Your task to perform on an android device: toggle pop-ups in chrome Image 0: 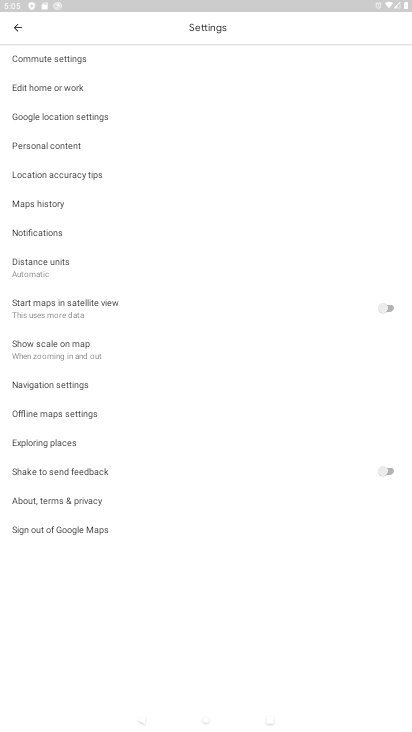
Step 0: press home button
Your task to perform on an android device: toggle pop-ups in chrome Image 1: 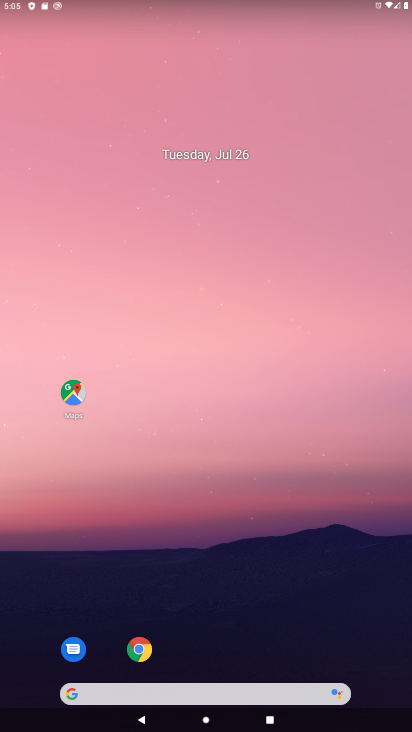
Step 1: click (140, 653)
Your task to perform on an android device: toggle pop-ups in chrome Image 2: 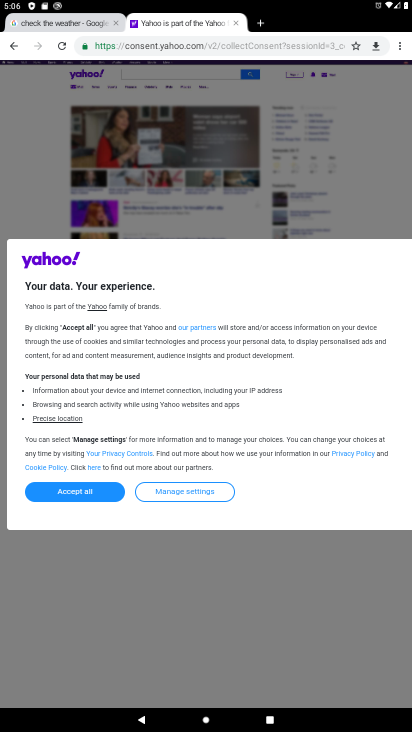
Step 2: click (391, 45)
Your task to perform on an android device: toggle pop-ups in chrome Image 3: 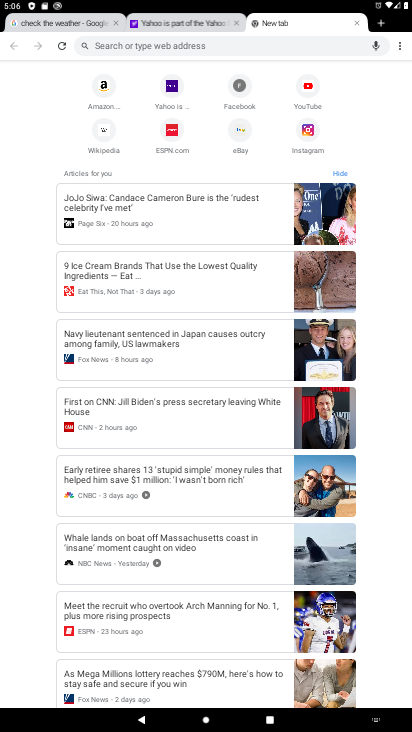
Step 3: click (400, 53)
Your task to perform on an android device: toggle pop-ups in chrome Image 4: 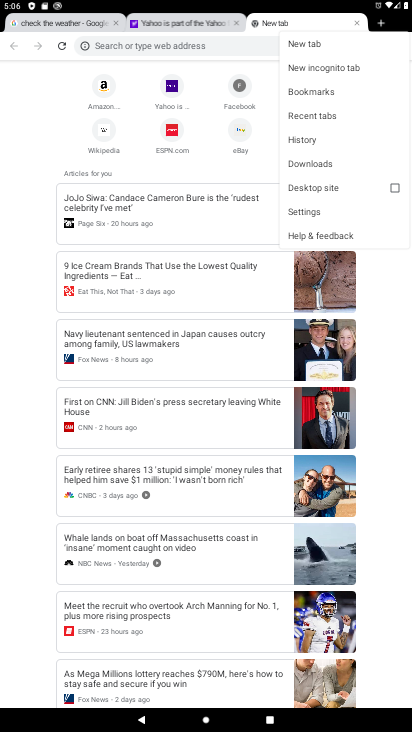
Step 4: click (353, 215)
Your task to perform on an android device: toggle pop-ups in chrome Image 5: 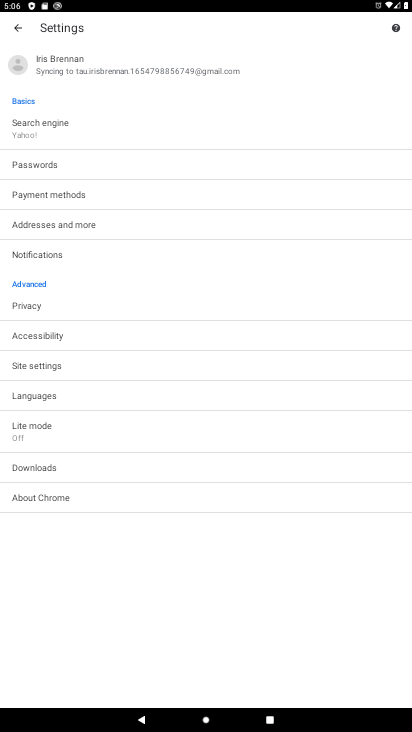
Step 5: click (83, 364)
Your task to perform on an android device: toggle pop-ups in chrome Image 6: 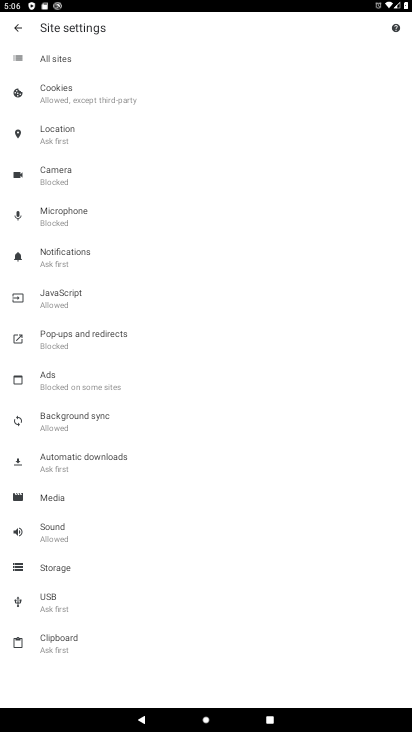
Step 6: click (113, 345)
Your task to perform on an android device: toggle pop-ups in chrome Image 7: 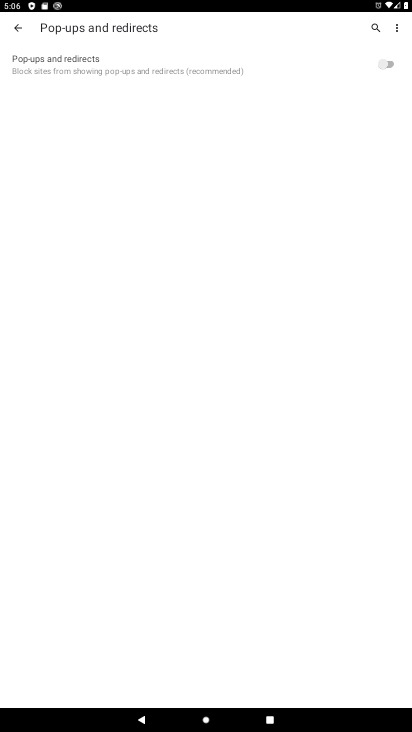
Step 7: click (402, 63)
Your task to perform on an android device: toggle pop-ups in chrome Image 8: 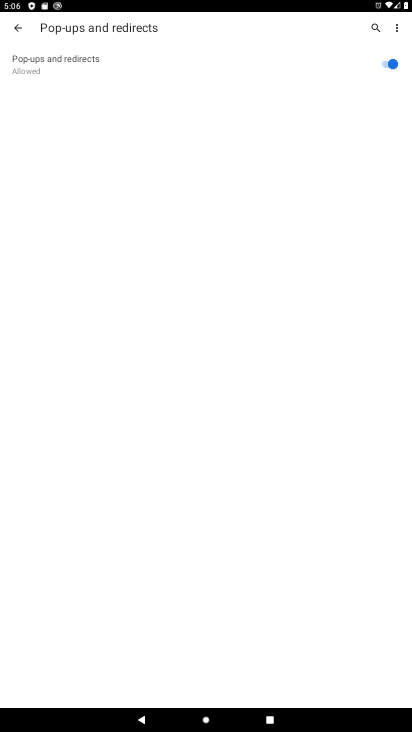
Step 8: task complete